Your task to perform on an android device: make emails show in primary in the gmail app Image 0: 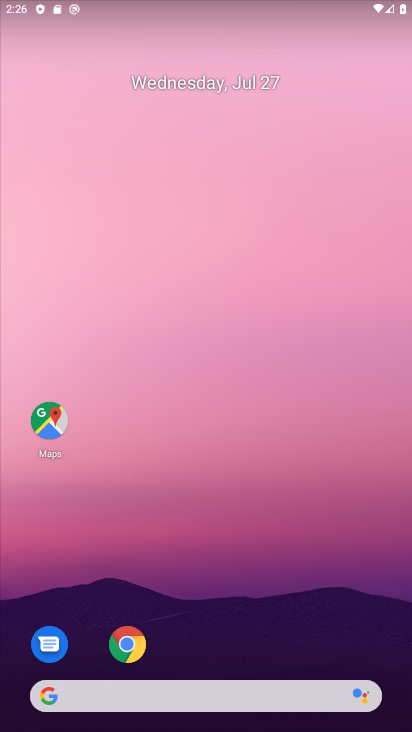
Step 0: drag from (214, 657) to (186, 207)
Your task to perform on an android device: make emails show in primary in the gmail app Image 1: 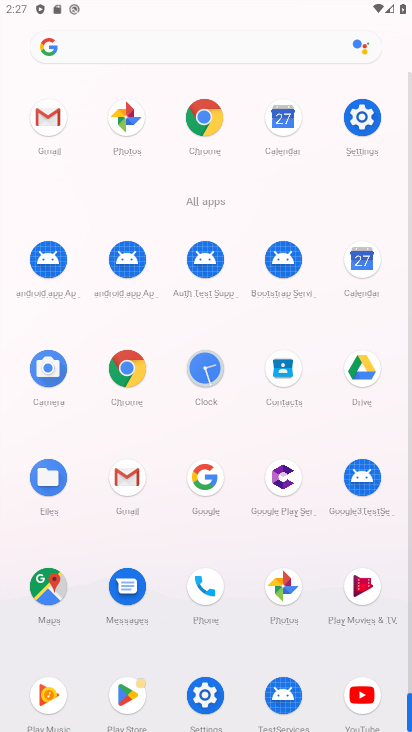
Step 1: click (134, 489)
Your task to perform on an android device: make emails show in primary in the gmail app Image 2: 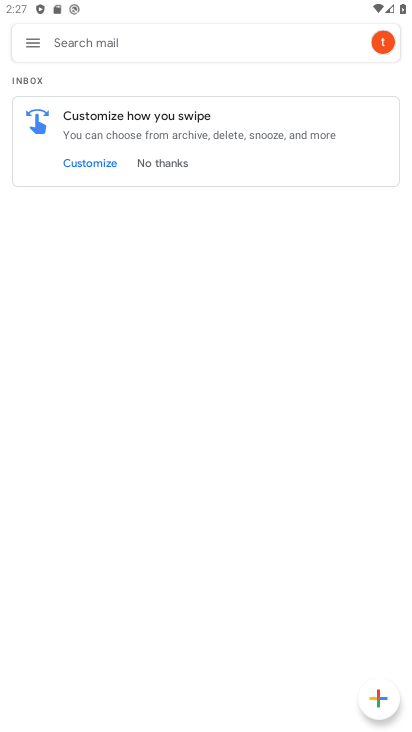
Step 2: click (31, 32)
Your task to perform on an android device: make emails show in primary in the gmail app Image 3: 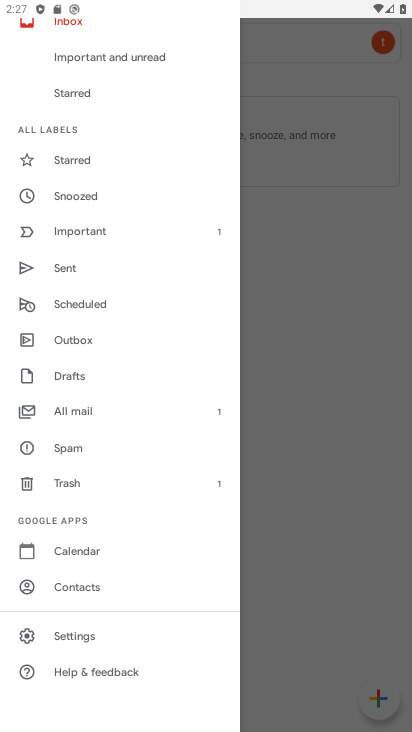
Step 3: click (74, 639)
Your task to perform on an android device: make emails show in primary in the gmail app Image 4: 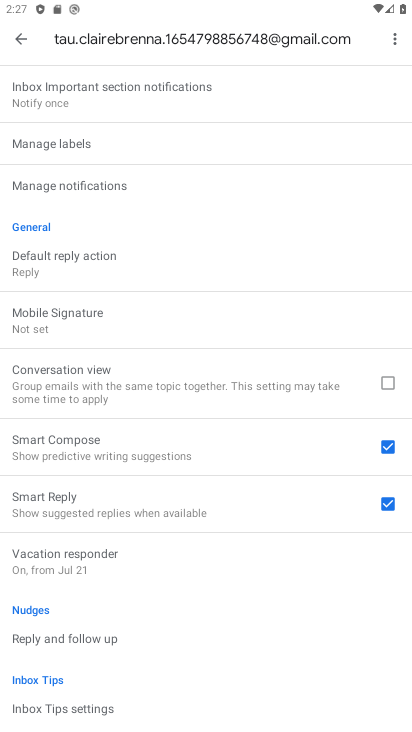
Step 4: drag from (91, 175) to (74, 678)
Your task to perform on an android device: make emails show in primary in the gmail app Image 5: 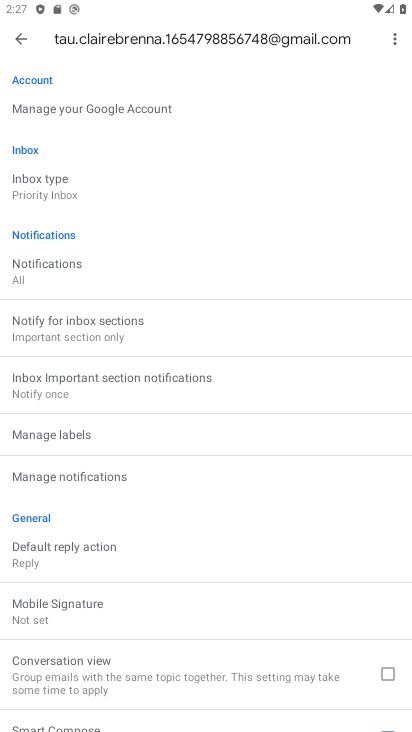
Step 5: click (71, 183)
Your task to perform on an android device: make emails show in primary in the gmail app Image 6: 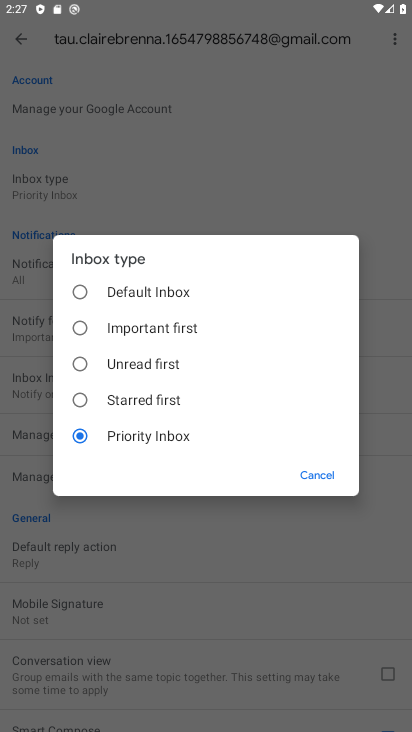
Step 6: click (150, 292)
Your task to perform on an android device: make emails show in primary in the gmail app Image 7: 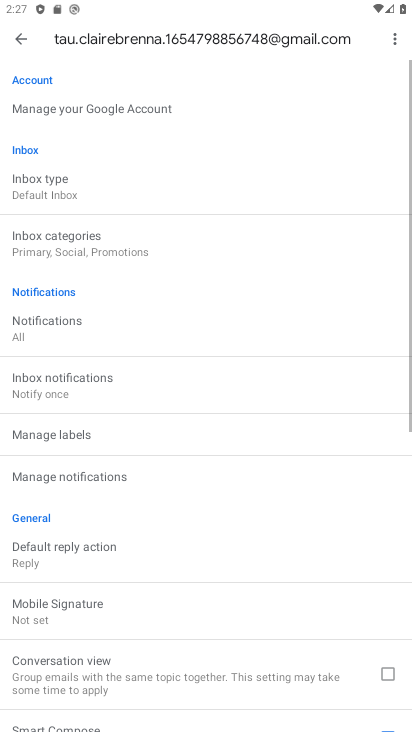
Step 7: click (111, 245)
Your task to perform on an android device: make emails show in primary in the gmail app Image 8: 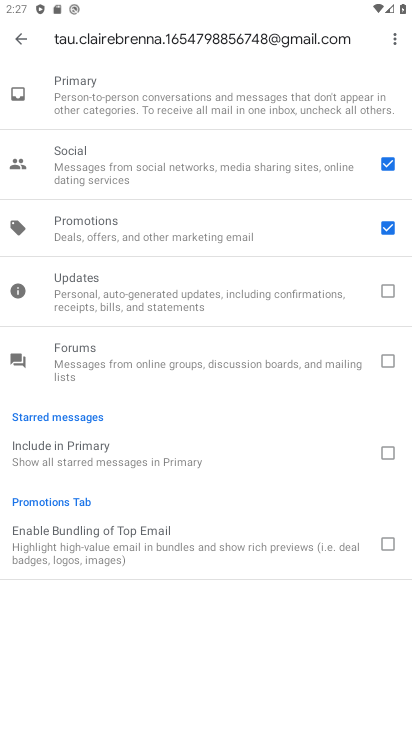
Step 8: click (372, 165)
Your task to perform on an android device: make emails show in primary in the gmail app Image 9: 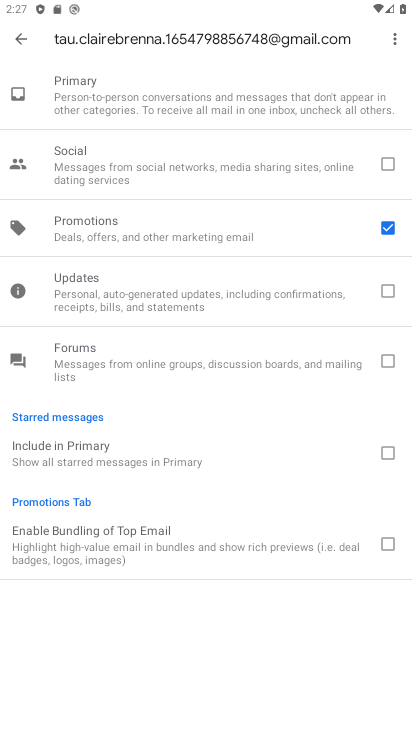
Step 9: click (379, 231)
Your task to perform on an android device: make emails show in primary in the gmail app Image 10: 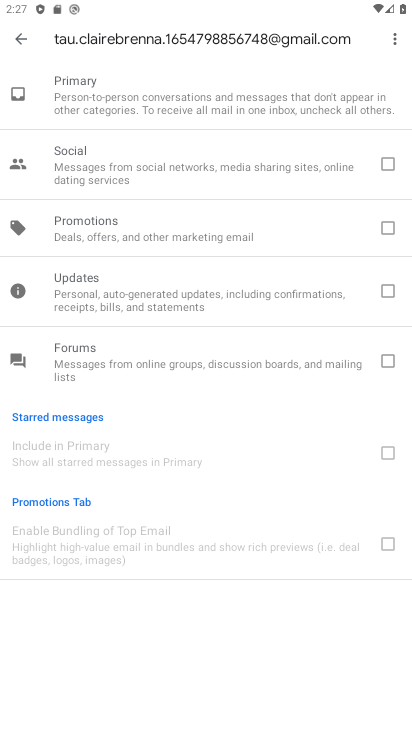
Step 10: task complete